Your task to perform on an android device: stop showing notifications on the lock screen Image 0: 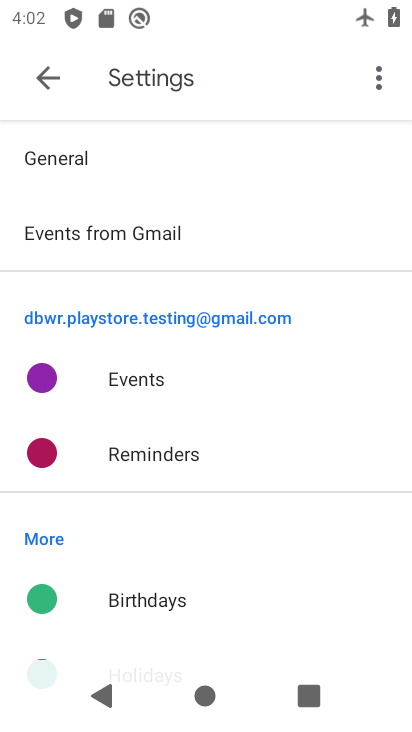
Step 0: press back button
Your task to perform on an android device: stop showing notifications on the lock screen Image 1: 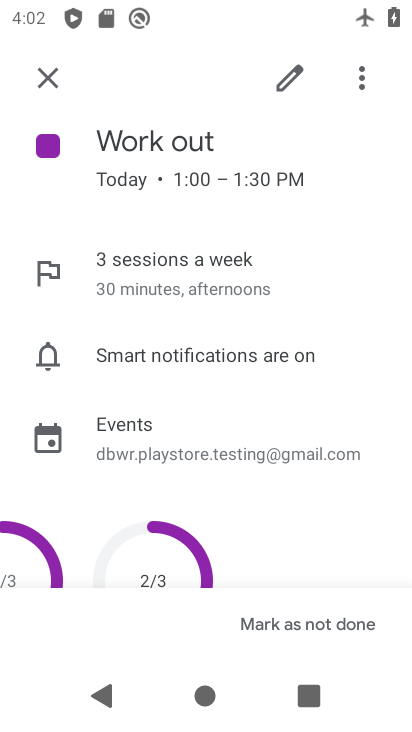
Step 1: press back button
Your task to perform on an android device: stop showing notifications on the lock screen Image 2: 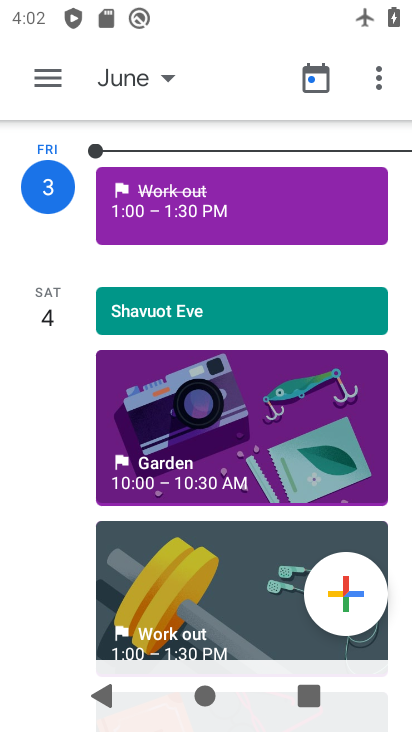
Step 2: press back button
Your task to perform on an android device: stop showing notifications on the lock screen Image 3: 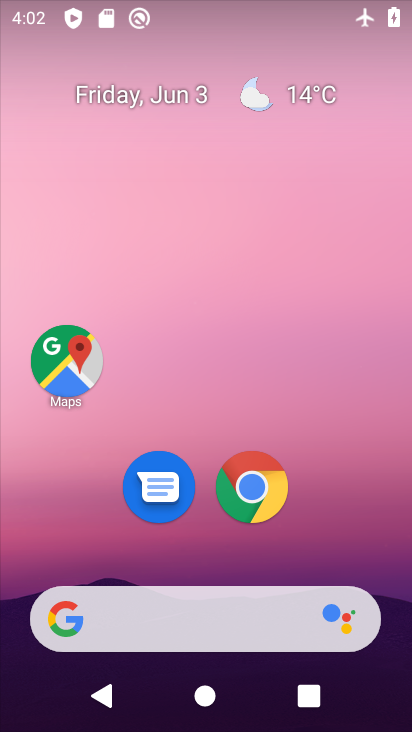
Step 3: drag from (189, 527) to (247, 26)
Your task to perform on an android device: stop showing notifications on the lock screen Image 4: 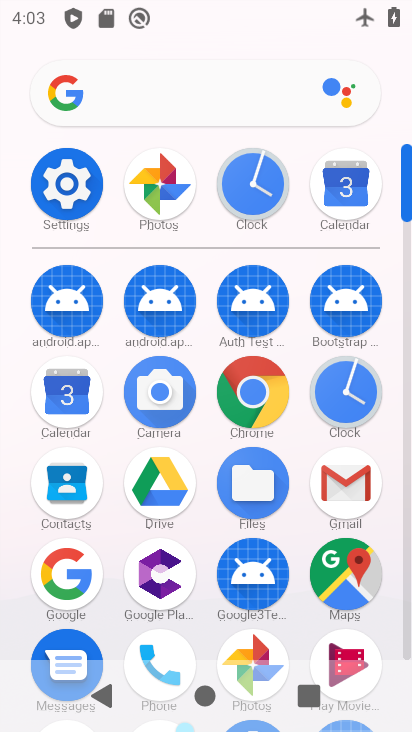
Step 4: click (75, 189)
Your task to perform on an android device: stop showing notifications on the lock screen Image 5: 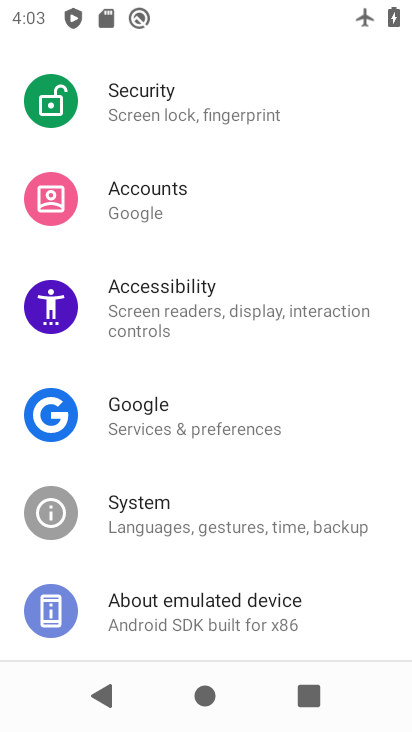
Step 5: drag from (157, 218) to (158, 569)
Your task to perform on an android device: stop showing notifications on the lock screen Image 6: 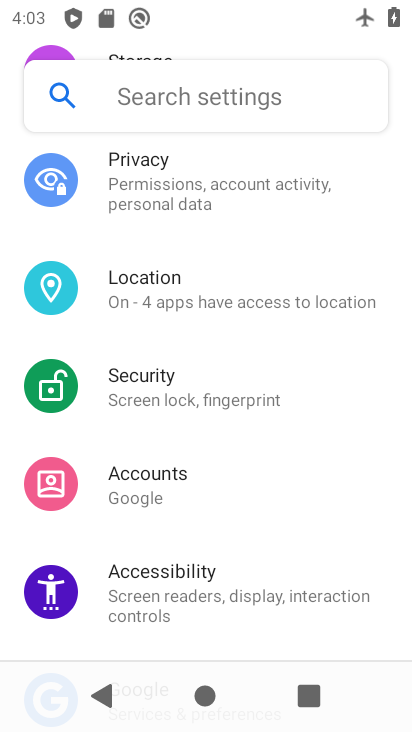
Step 6: drag from (170, 247) to (162, 688)
Your task to perform on an android device: stop showing notifications on the lock screen Image 7: 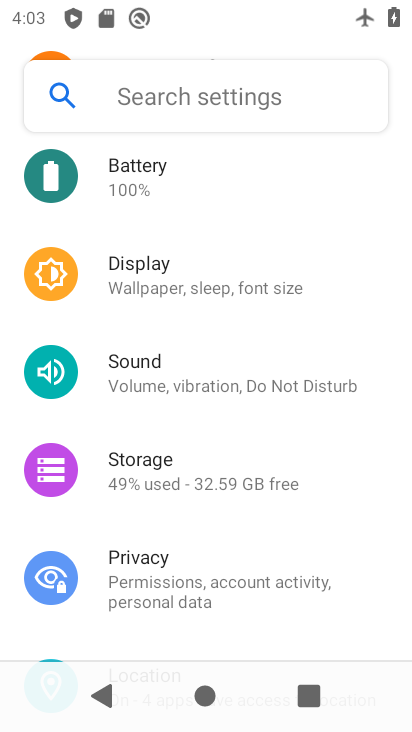
Step 7: drag from (201, 224) to (156, 702)
Your task to perform on an android device: stop showing notifications on the lock screen Image 8: 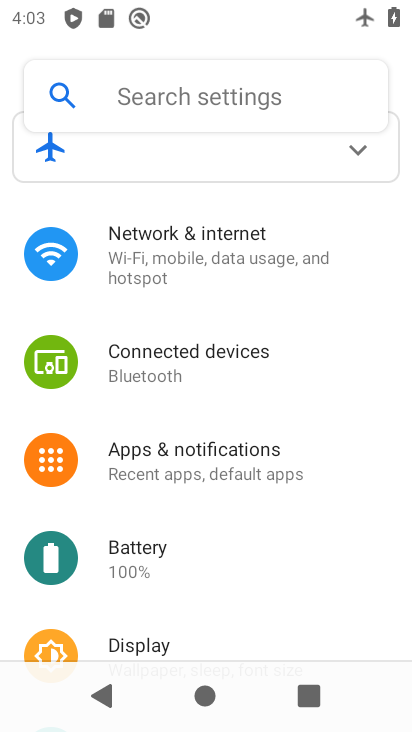
Step 8: click (194, 461)
Your task to perform on an android device: stop showing notifications on the lock screen Image 9: 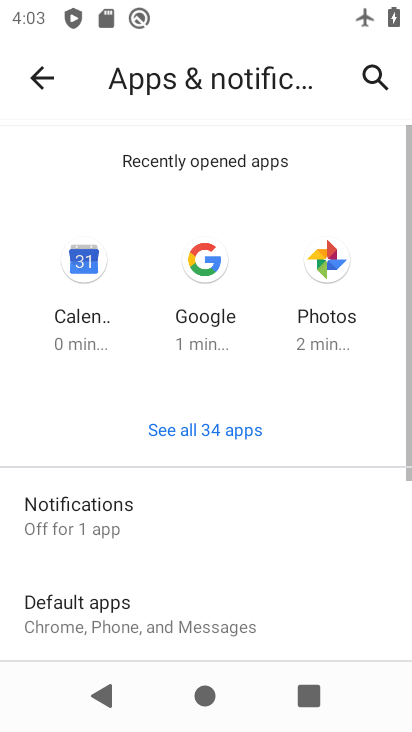
Step 9: click (141, 512)
Your task to perform on an android device: stop showing notifications on the lock screen Image 10: 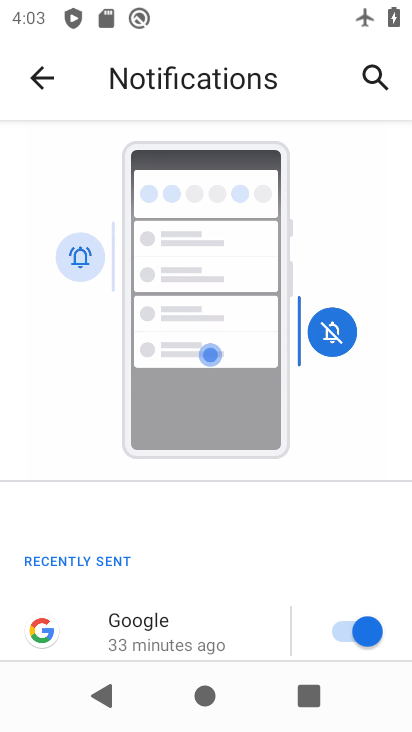
Step 10: drag from (192, 589) to (280, 9)
Your task to perform on an android device: stop showing notifications on the lock screen Image 11: 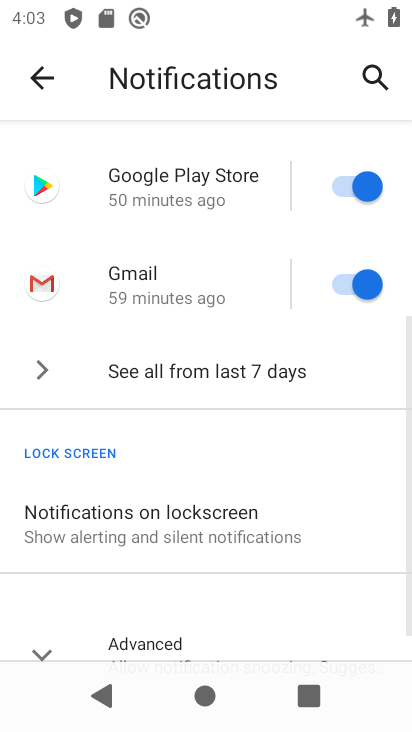
Step 11: click (165, 510)
Your task to perform on an android device: stop showing notifications on the lock screen Image 12: 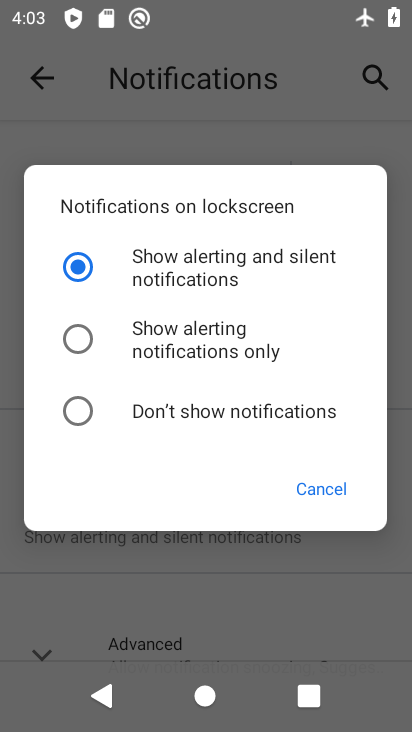
Step 12: click (77, 411)
Your task to perform on an android device: stop showing notifications on the lock screen Image 13: 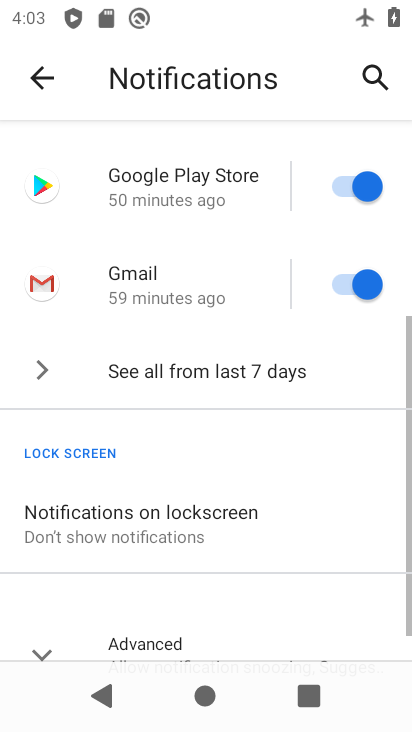
Step 13: task complete